Your task to perform on an android device: Check the weather Image 0: 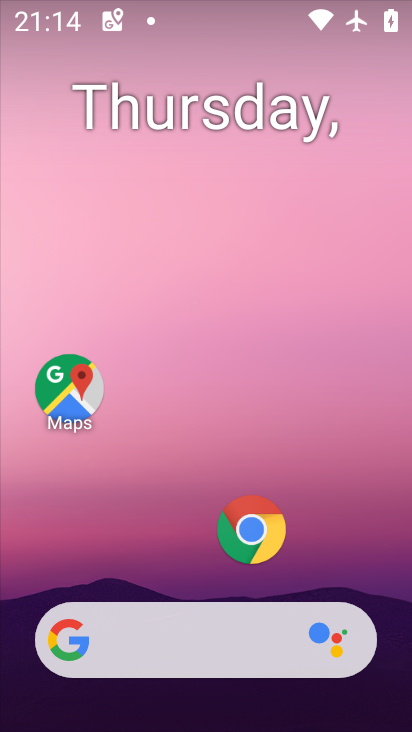
Step 0: press home button
Your task to perform on an android device: Check the weather Image 1: 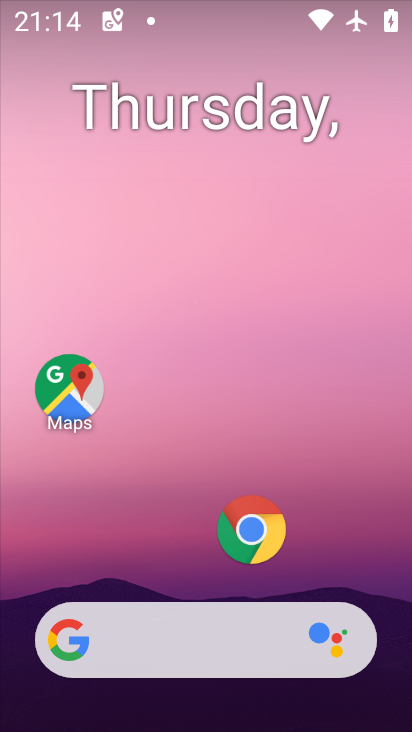
Step 1: drag from (8, 302) to (399, 335)
Your task to perform on an android device: Check the weather Image 2: 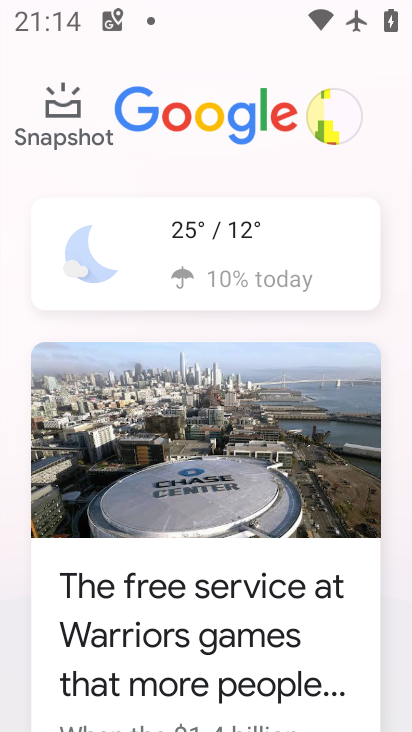
Step 2: click (220, 239)
Your task to perform on an android device: Check the weather Image 3: 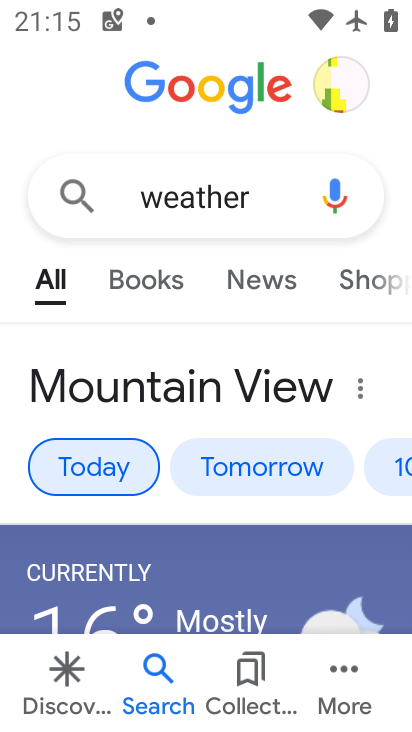
Step 3: task complete